Your task to perform on an android device: toggle improve location accuracy Image 0: 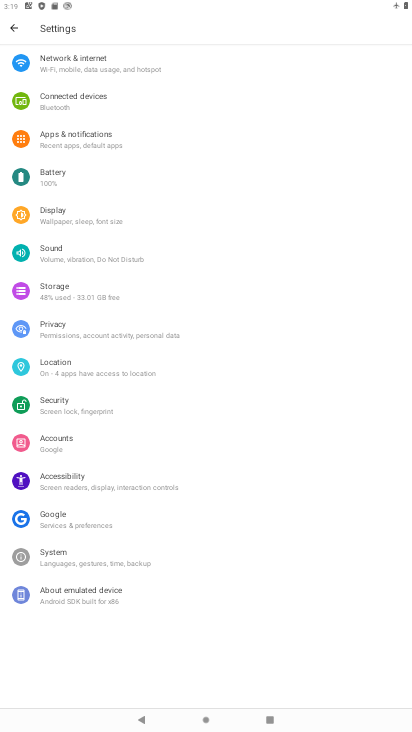
Step 0: press home button
Your task to perform on an android device: toggle improve location accuracy Image 1: 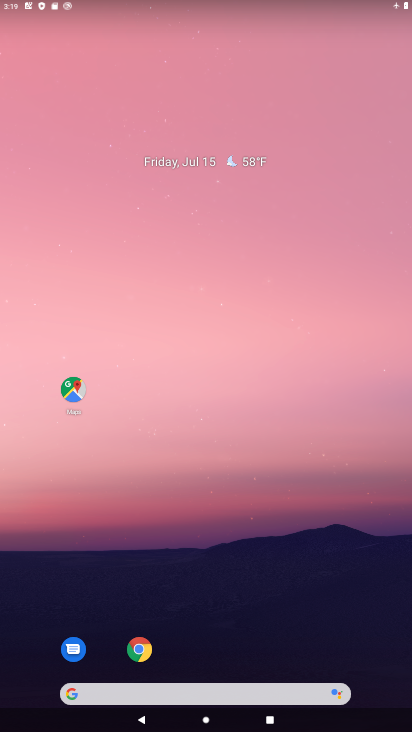
Step 1: drag from (234, 722) to (216, 200)
Your task to perform on an android device: toggle improve location accuracy Image 2: 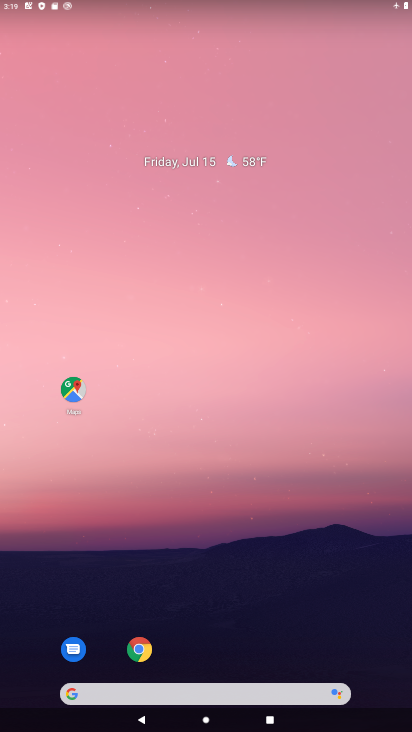
Step 2: drag from (236, 714) to (208, 341)
Your task to perform on an android device: toggle improve location accuracy Image 3: 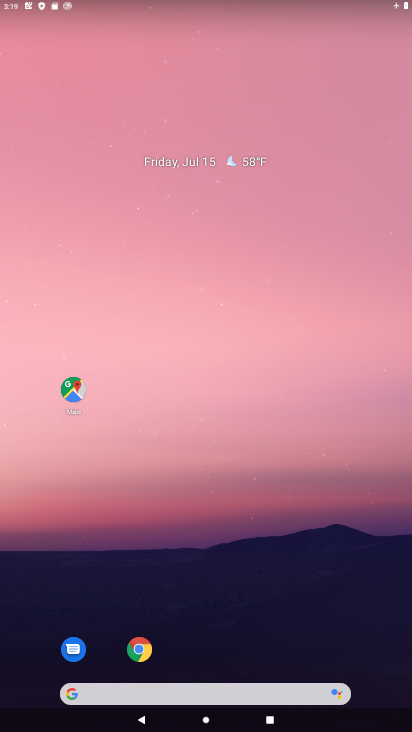
Step 3: drag from (249, 729) to (240, 11)
Your task to perform on an android device: toggle improve location accuracy Image 4: 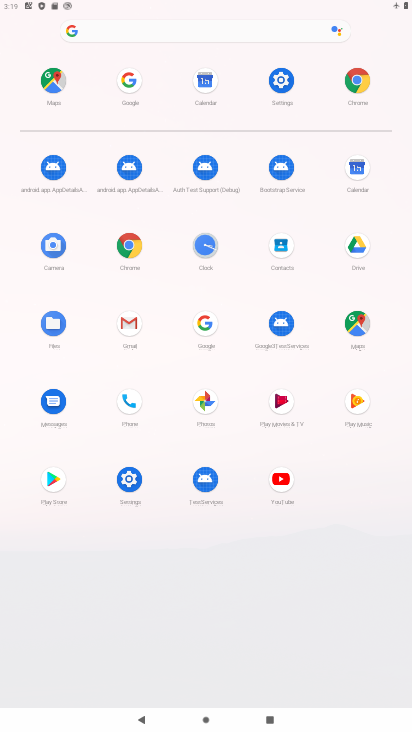
Step 4: click (285, 77)
Your task to perform on an android device: toggle improve location accuracy Image 5: 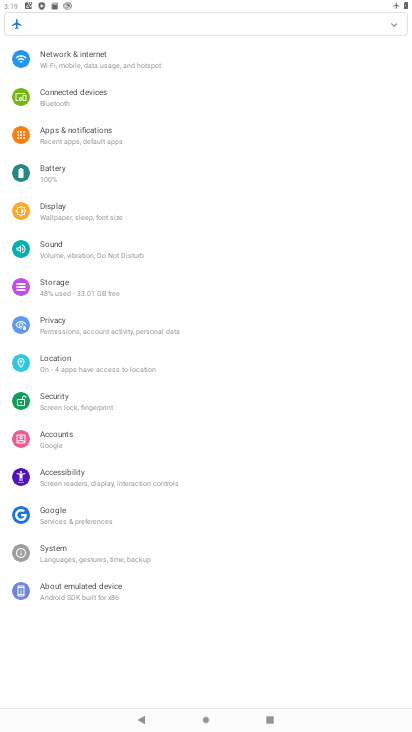
Step 5: click (68, 361)
Your task to perform on an android device: toggle improve location accuracy Image 6: 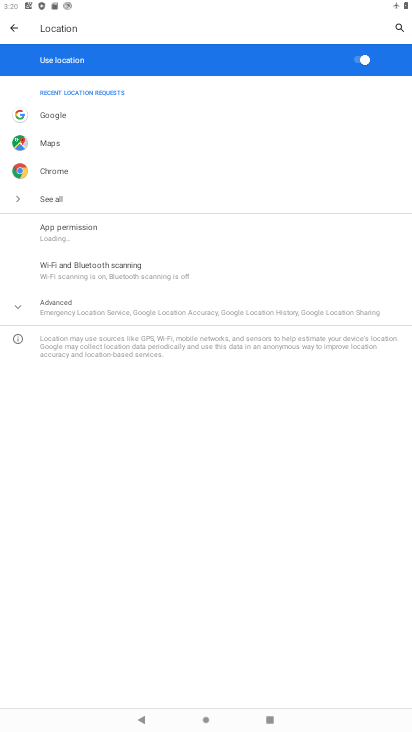
Step 6: click (70, 306)
Your task to perform on an android device: toggle improve location accuracy Image 7: 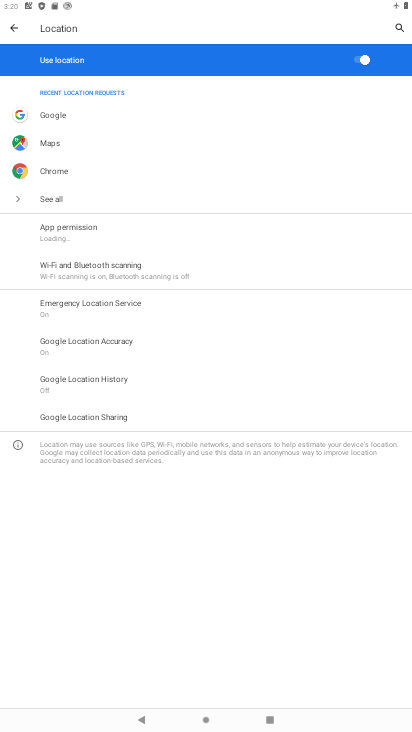
Step 7: click (74, 343)
Your task to perform on an android device: toggle improve location accuracy Image 8: 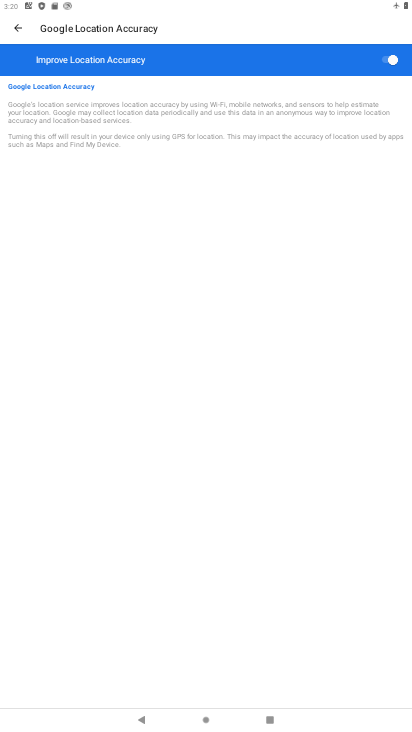
Step 8: task complete